Your task to perform on an android device: toggle improve location accuracy Image 0: 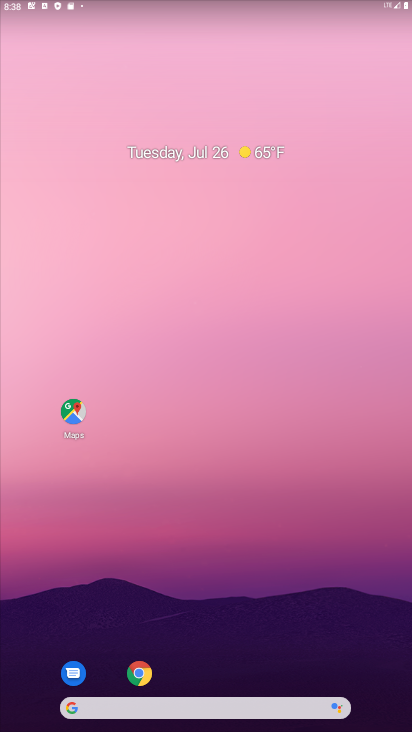
Step 0: drag from (234, 636) to (289, 115)
Your task to perform on an android device: toggle improve location accuracy Image 1: 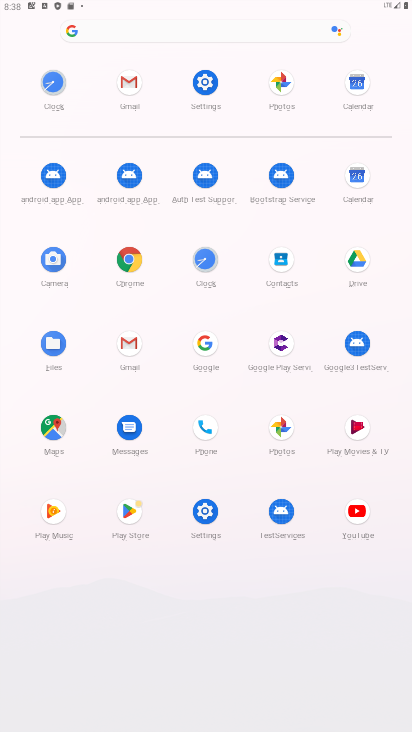
Step 1: click (209, 83)
Your task to perform on an android device: toggle improve location accuracy Image 2: 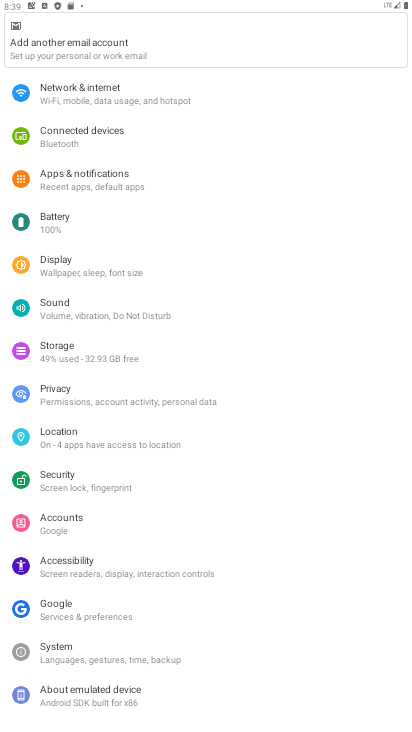
Step 2: click (103, 433)
Your task to perform on an android device: toggle improve location accuracy Image 3: 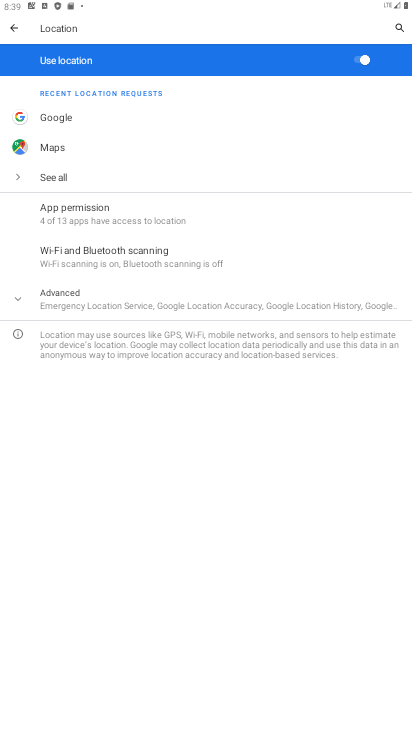
Step 3: click (179, 288)
Your task to perform on an android device: toggle improve location accuracy Image 4: 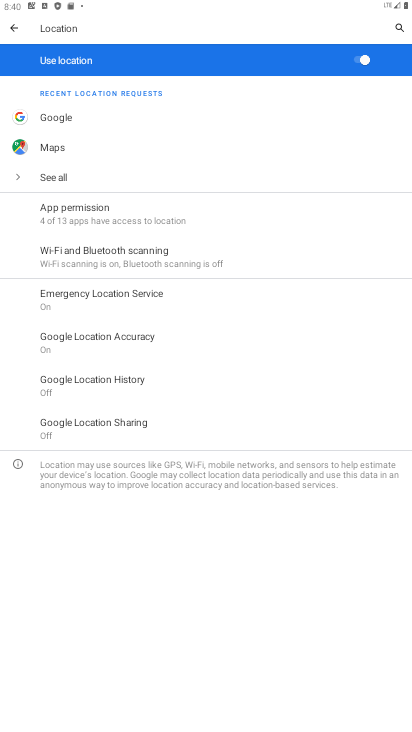
Step 4: click (83, 343)
Your task to perform on an android device: toggle improve location accuracy Image 5: 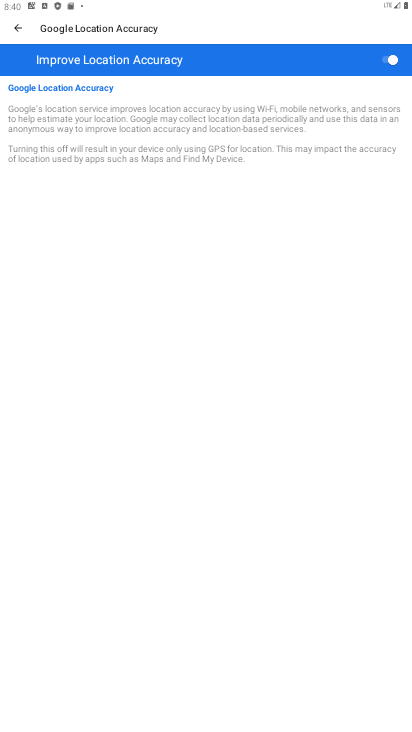
Step 5: click (386, 62)
Your task to perform on an android device: toggle improve location accuracy Image 6: 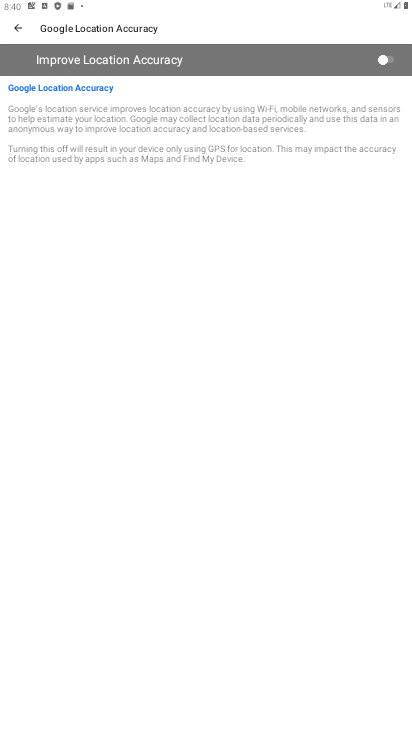
Step 6: task complete